Your task to perform on an android device: What is the recent news? Image 0: 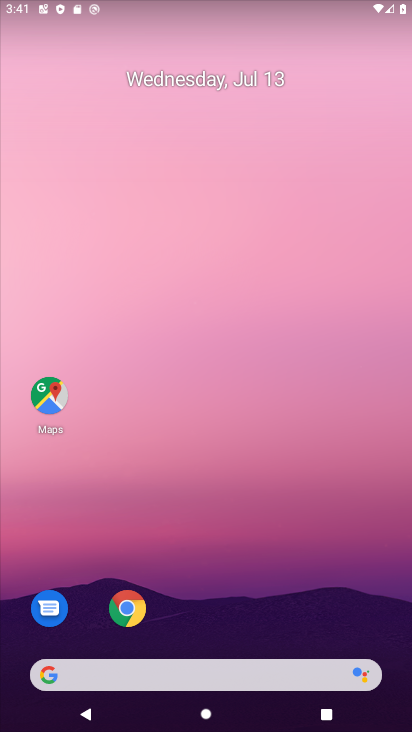
Step 0: drag from (2, 213) to (384, 219)
Your task to perform on an android device: What is the recent news? Image 1: 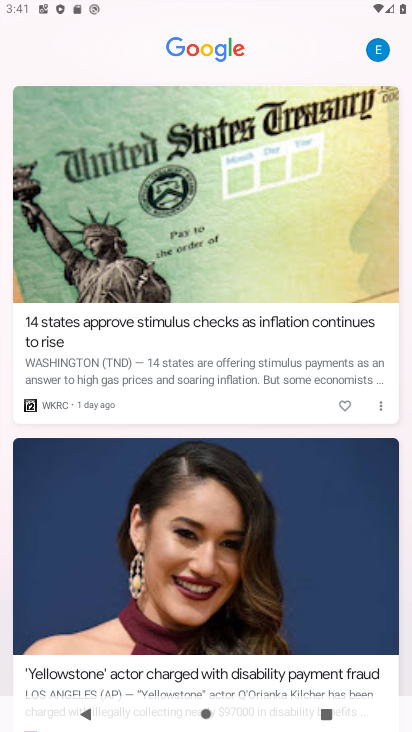
Step 1: task complete